Your task to perform on an android device: set default search engine in the chrome app Image 0: 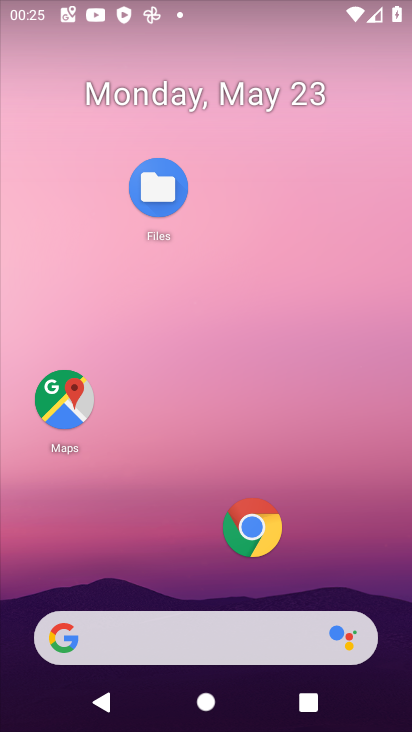
Step 0: click (248, 530)
Your task to perform on an android device: set default search engine in the chrome app Image 1: 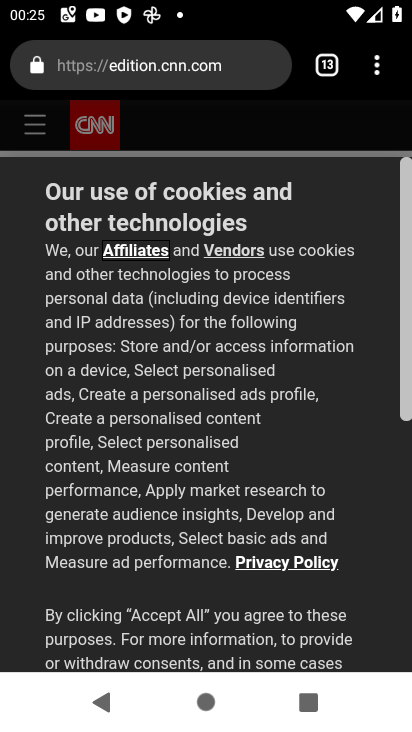
Step 1: click (378, 66)
Your task to perform on an android device: set default search engine in the chrome app Image 2: 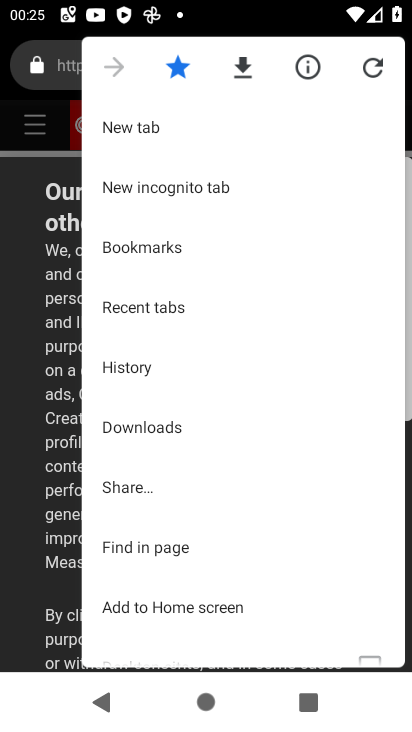
Step 2: drag from (211, 545) to (203, 168)
Your task to perform on an android device: set default search engine in the chrome app Image 3: 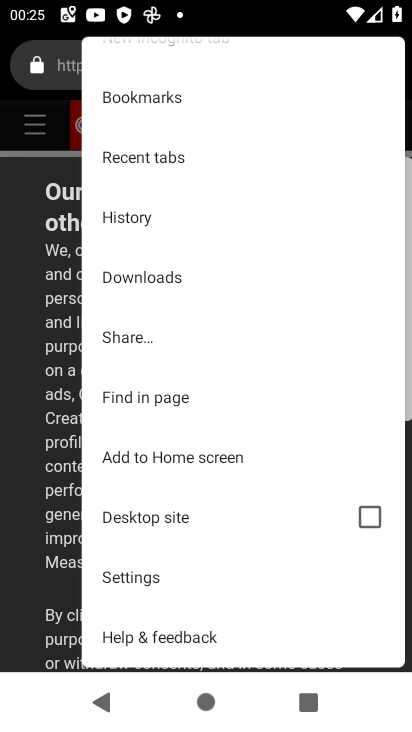
Step 3: click (150, 572)
Your task to perform on an android device: set default search engine in the chrome app Image 4: 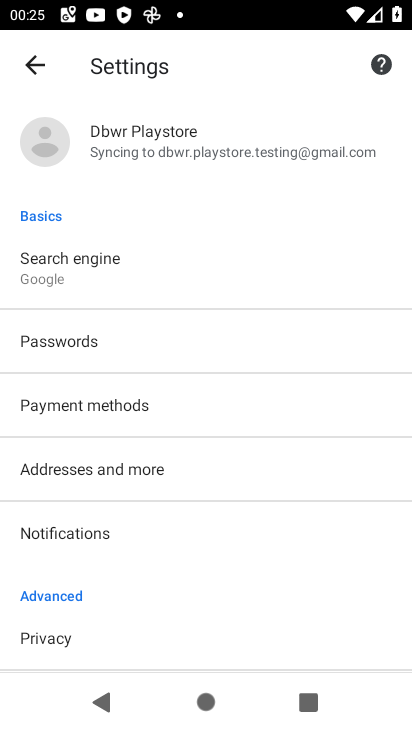
Step 4: click (62, 252)
Your task to perform on an android device: set default search engine in the chrome app Image 5: 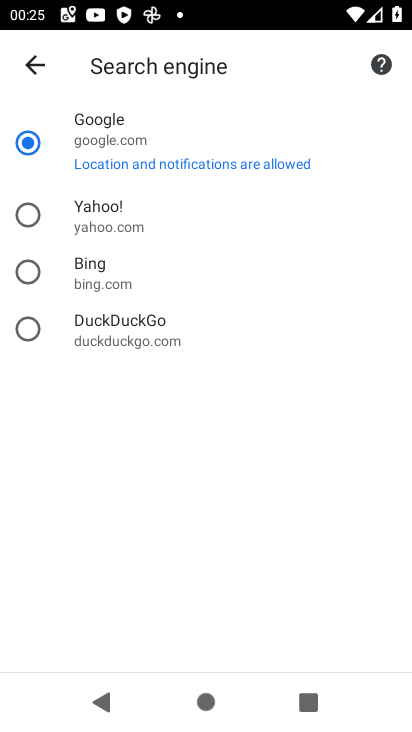
Step 5: click (30, 223)
Your task to perform on an android device: set default search engine in the chrome app Image 6: 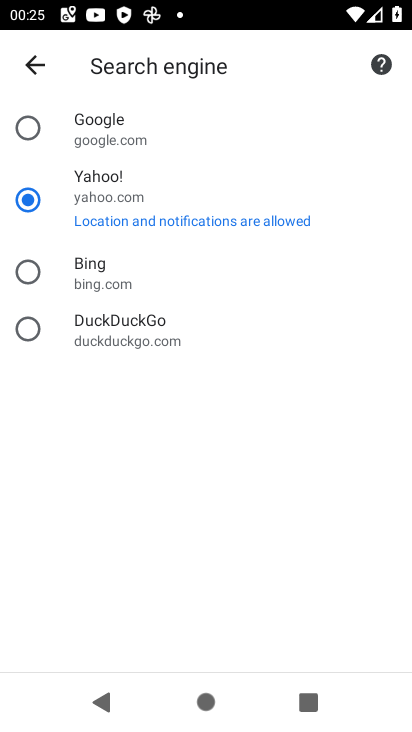
Step 6: task complete